Your task to perform on an android device: turn off sleep mode Image 0: 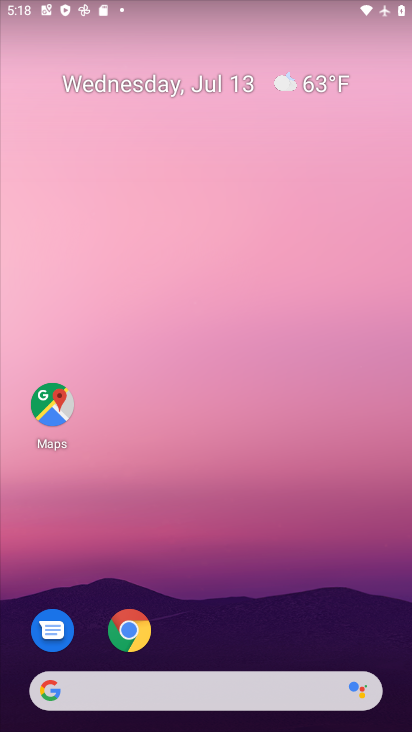
Step 0: press home button
Your task to perform on an android device: turn off sleep mode Image 1: 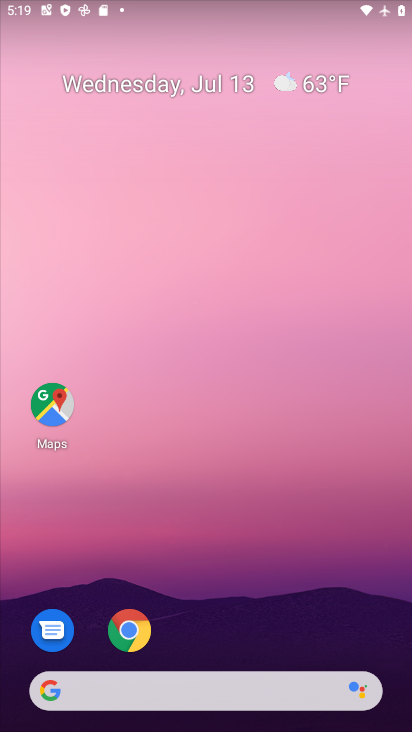
Step 1: drag from (265, 598) to (268, 172)
Your task to perform on an android device: turn off sleep mode Image 2: 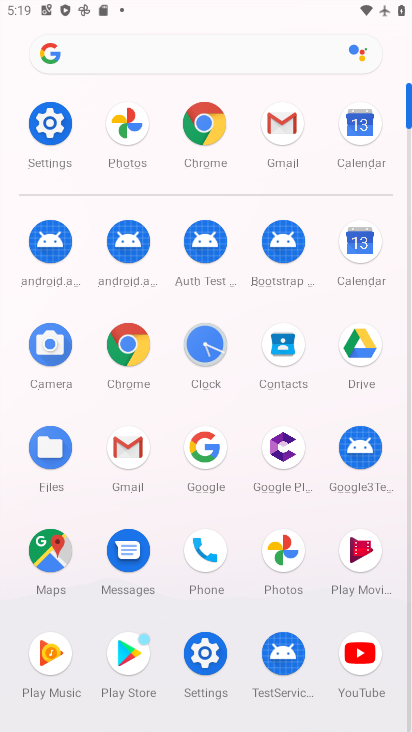
Step 2: click (39, 121)
Your task to perform on an android device: turn off sleep mode Image 3: 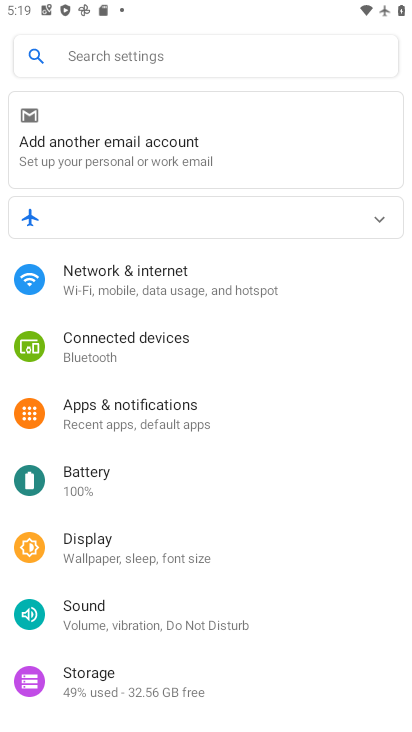
Step 3: click (88, 547)
Your task to perform on an android device: turn off sleep mode Image 4: 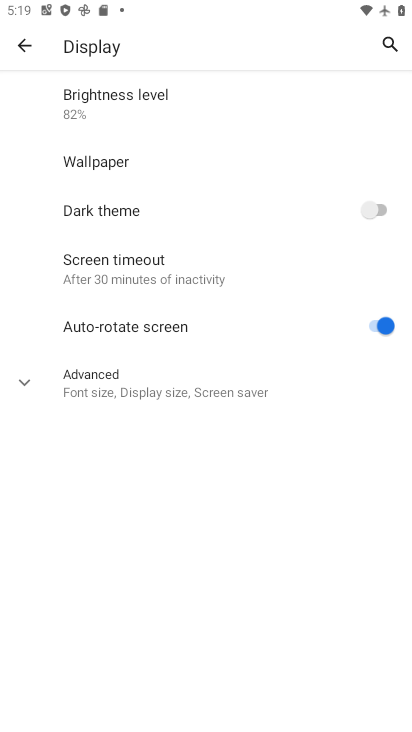
Step 4: task complete